Your task to perform on an android device: Search for the best vacuum on Walmart Image 0: 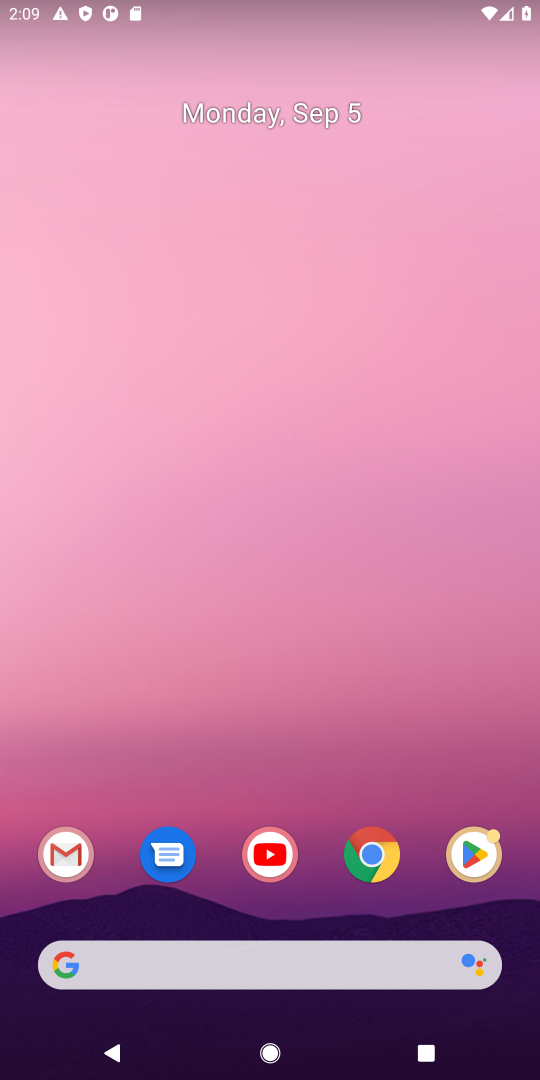
Step 0: click (284, 973)
Your task to perform on an android device: Search for the best vacuum on Walmart Image 1: 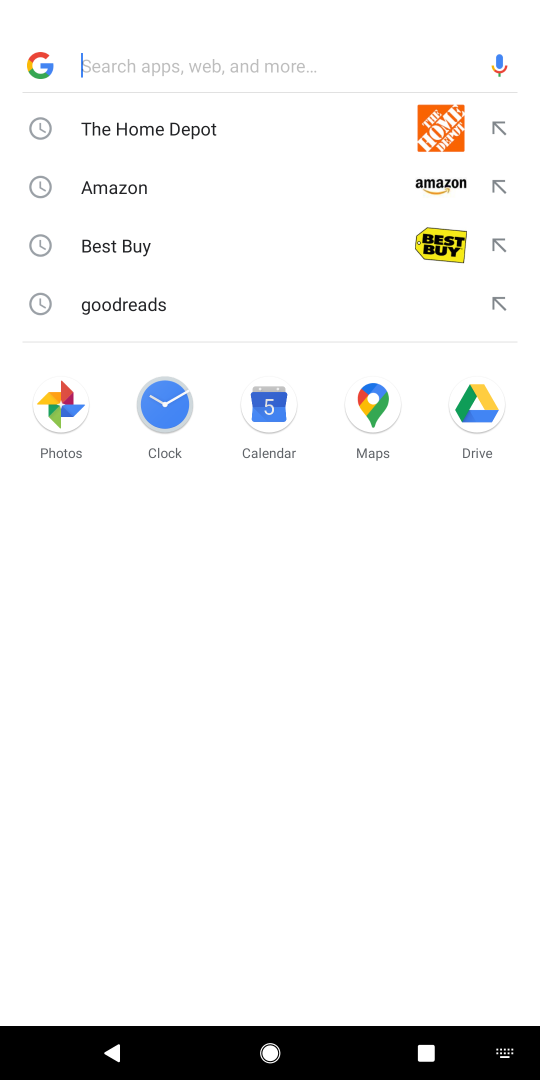
Step 1: press enter
Your task to perform on an android device: Search for the best vacuum on Walmart Image 2: 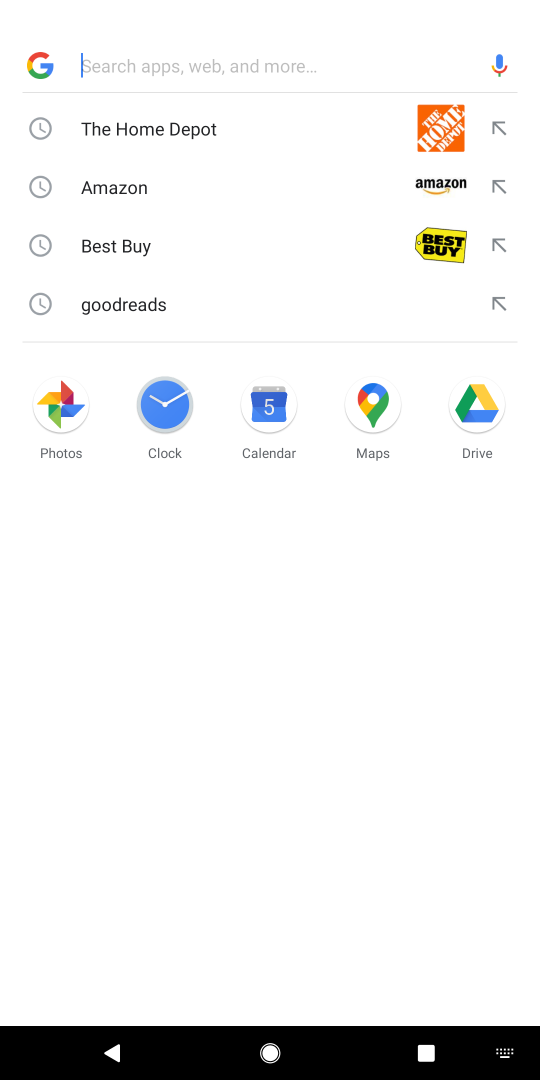
Step 2: type "walmart"
Your task to perform on an android device: Search for the best vacuum on Walmart Image 3: 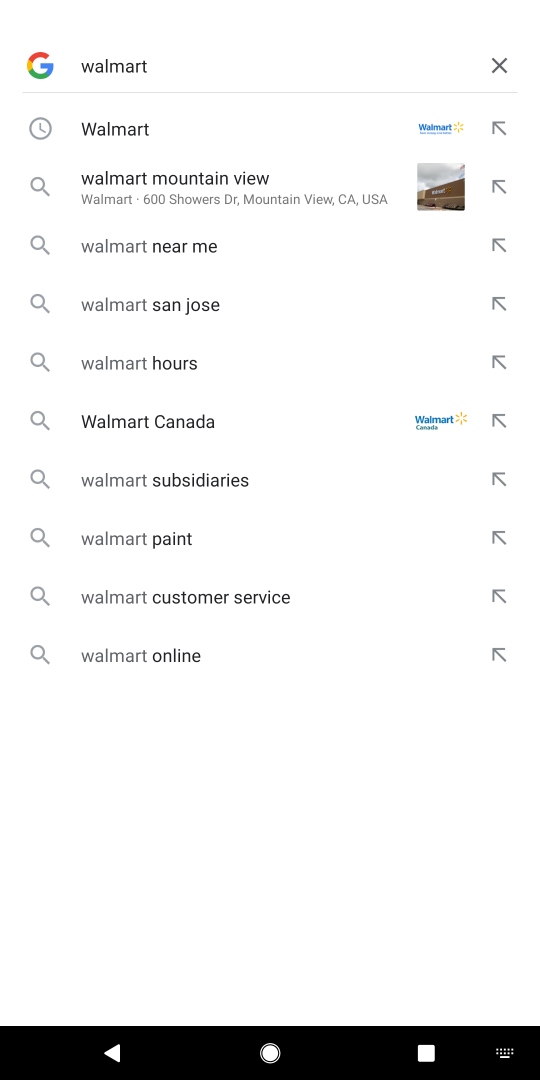
Step 3: click (155, 132)
Your task to perform on an android device: Search for the best vacuum on Walmart Image 4: 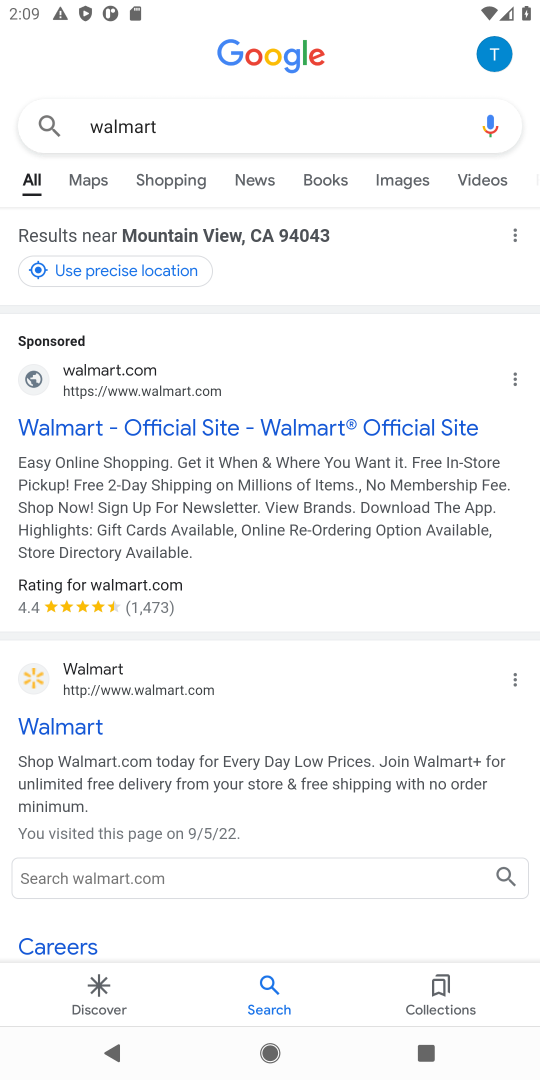
Step 4: click (335, 420)
Your task to perform on an android device: Search for the best vacuum on Walmart Image 5: 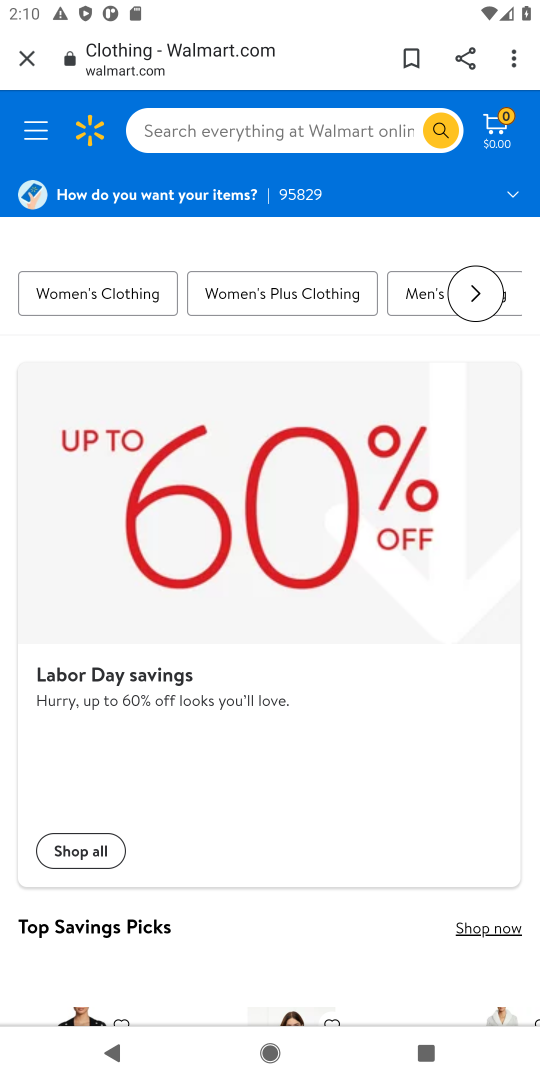
Step 5: click (265, 123)
Your task to perform on an android device: Search for the best vacuum on Walmart Image 6: 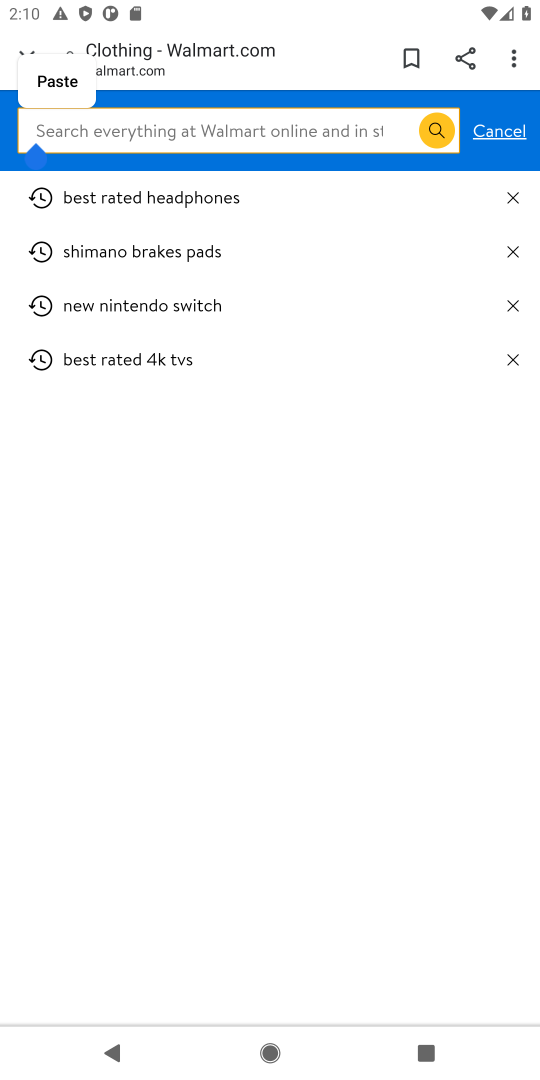
Step 6: type "best vacuum"
Your task to perform on an android device: Search for the best vacuum on Walmart Image 7: 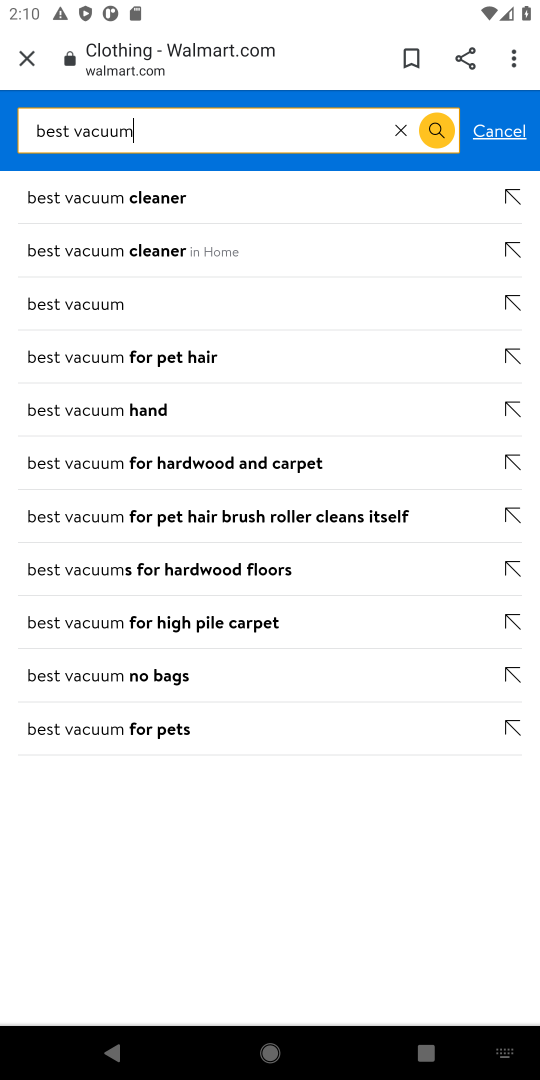
Step 7: press enter
Your task to perform on an android device: Search for the best vacuum on Walmart Image 8: 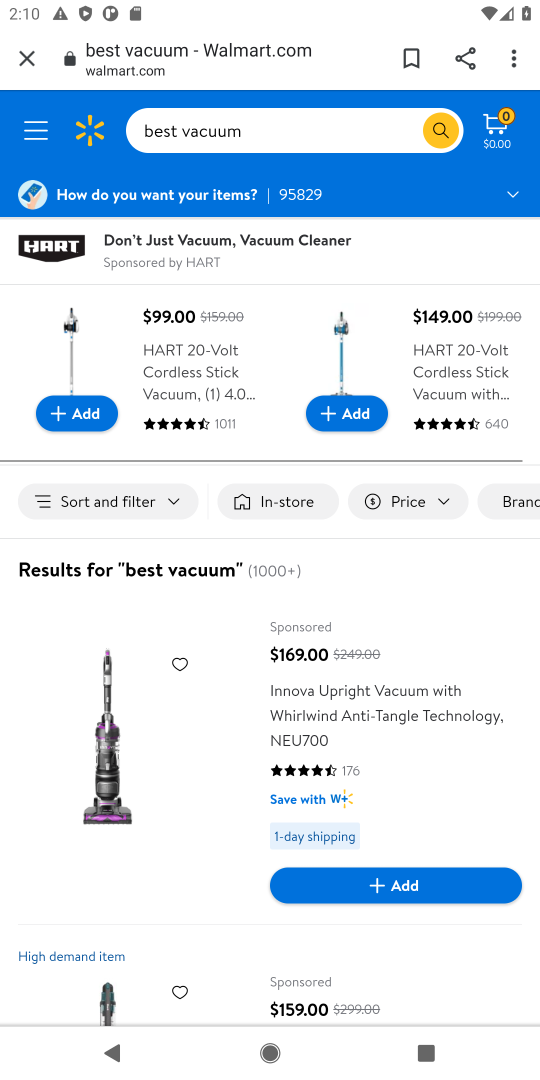
Step 8: task complete